Your task to perform on an android device: Open maps Image 0: 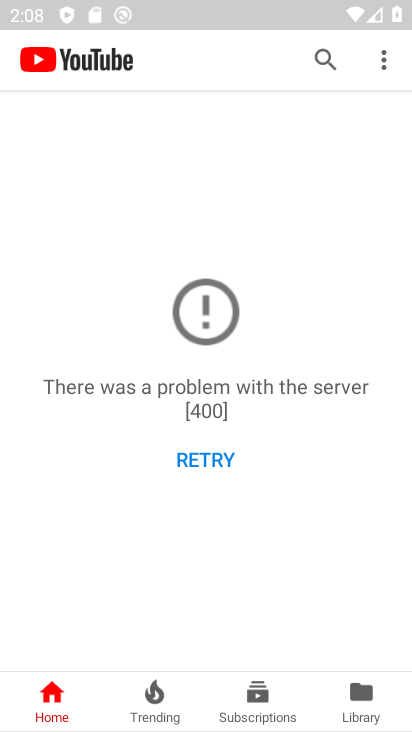
Step 0: press back button
Your task to perform on an android device: Open maps Image 1: 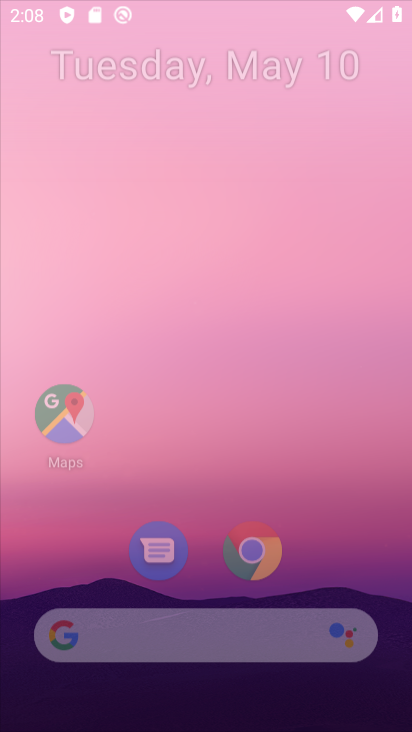
Step 1: press home button
Your task to perform on an android device: Open maps Image 2: 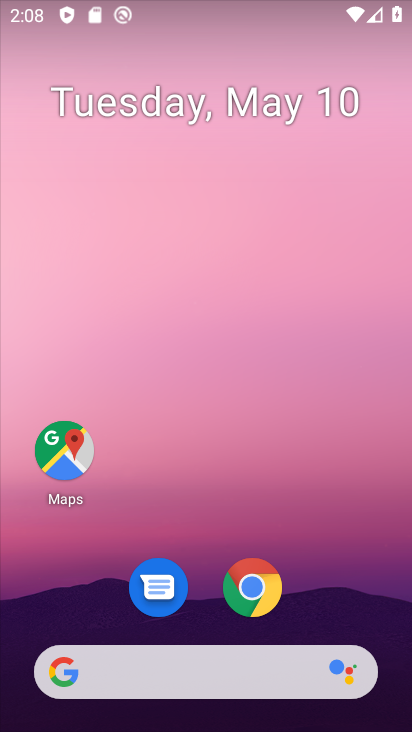
Step 2: click (75, 455)
Your task to perform on an android device: Open maps Image 3: 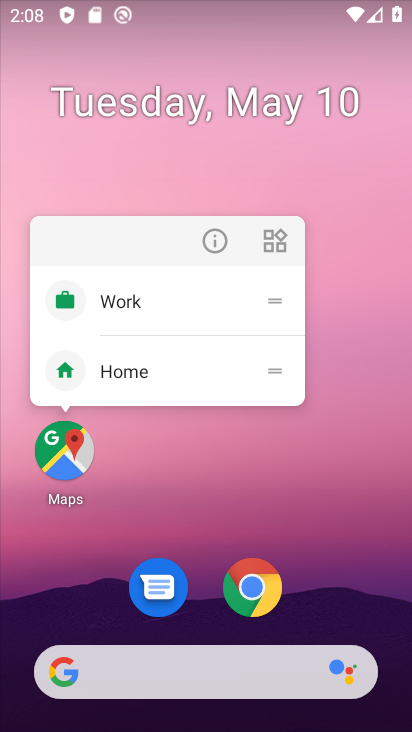
Step 3: click (75, 455)
Your task to perform on an android device: Open maps Image 4: 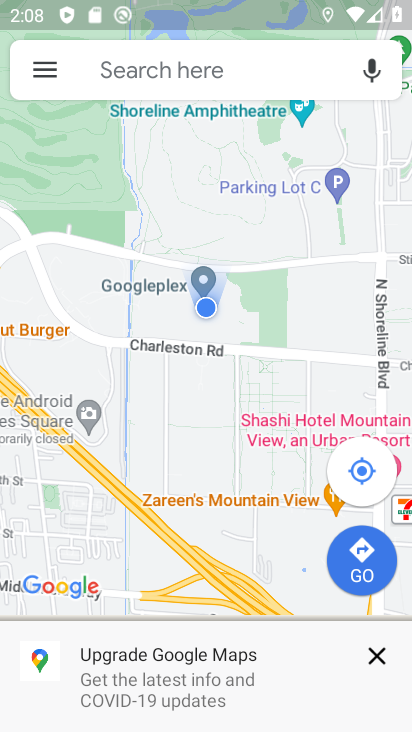
Step 4: click (379, 654)
Your task to perform on an android device: Open maps Image 5: 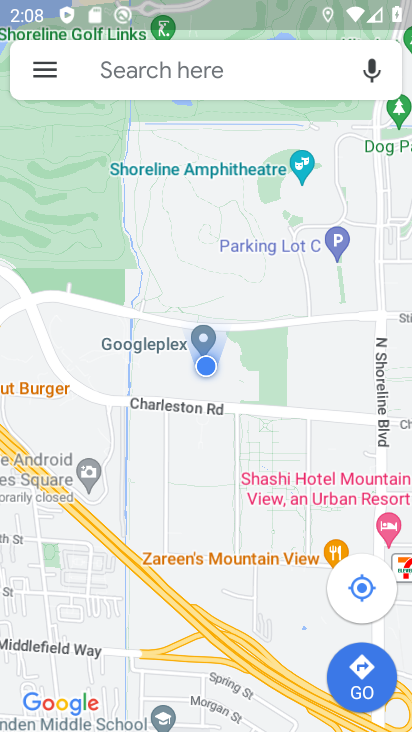
Step 5: task complete